Your task to perform on an android device: Go to Yahoo.com Image 0: 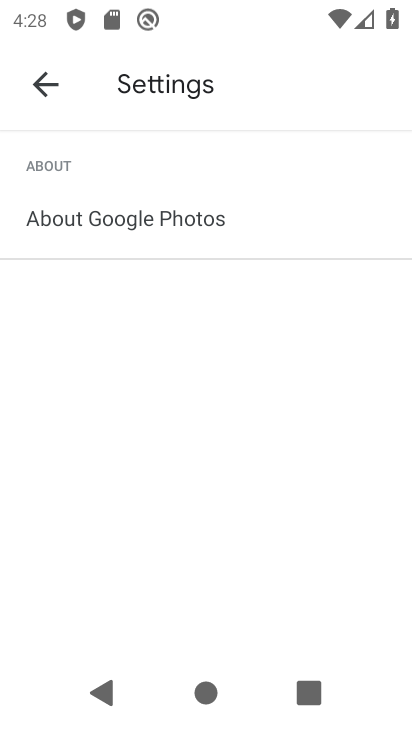
Step 0: press back button
Your task to perform on an android device: Go to Yahoo.com Image 1: 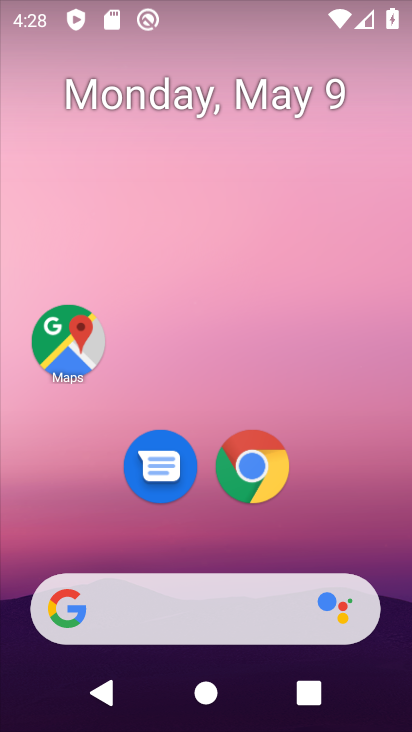
Step 1: drag from (347, 525) to (275, 0)
Your task to perform on an android device: Go to Yahoo.com Image 2: 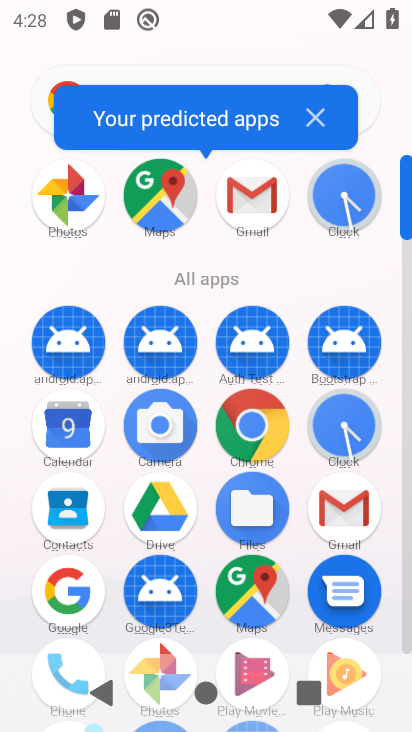
Step 2: click (259, 422)
Your task to perform on an android device: Go to Yahoo.com Image 3: 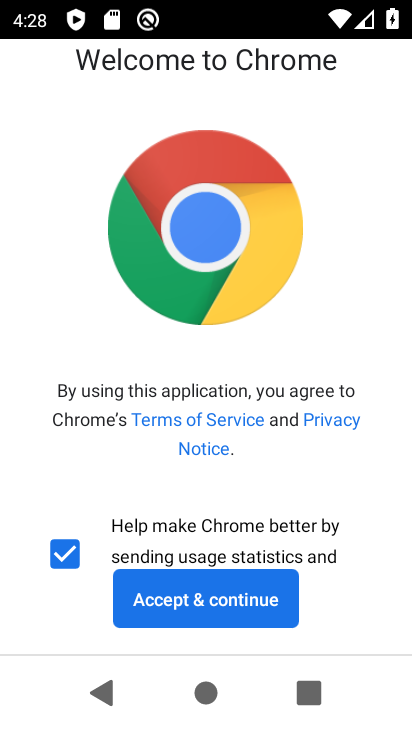
Step 3: click (230, 595)
Your task to perform on an android device: Go to Yahoo.com Image 4: 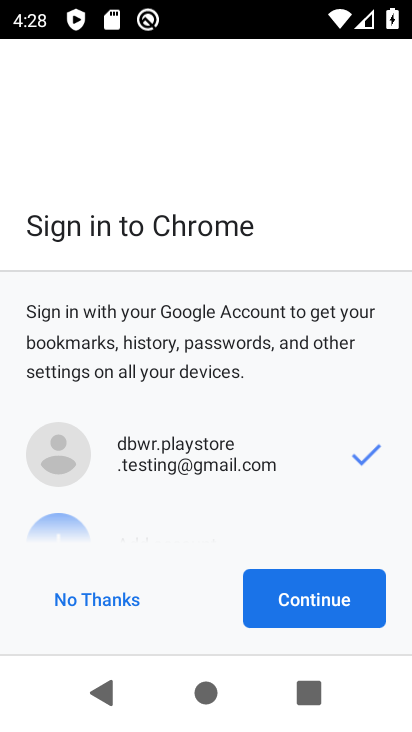
Step 4: click (308, 595)
Your task to perform on an android device: Go to Yahoo.com Image 5: 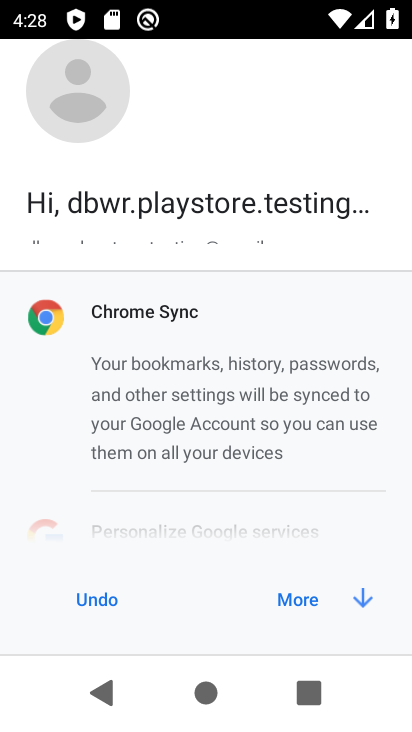
Step 5: click (309, 588)
Your task to perform on an android device: Go to Yahoo.com Image 6: 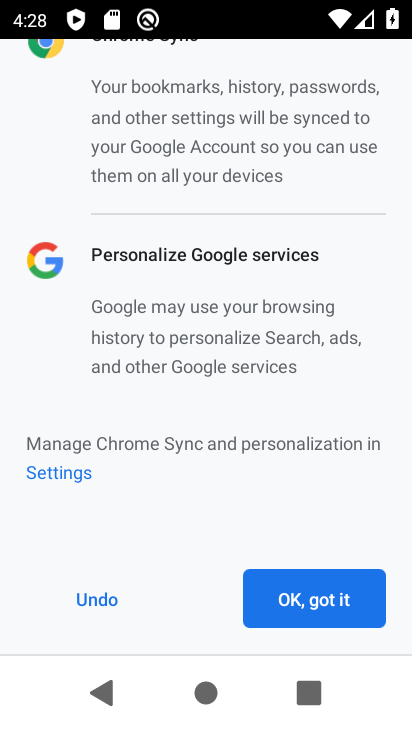
Step 6: click (325, 614)
Your task to perform on an android device: Go to Yahoo.com Image 7: 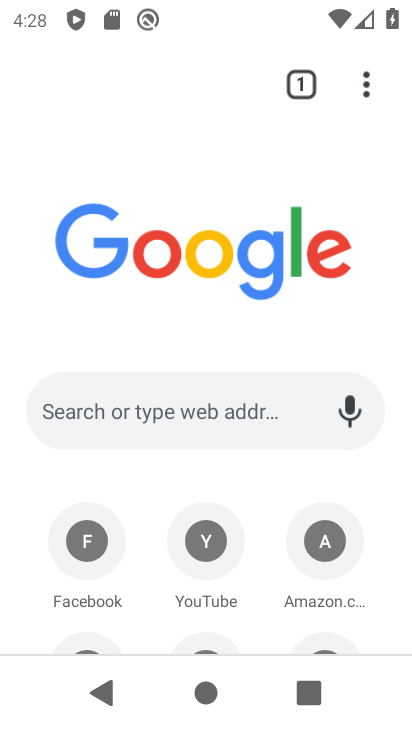
Step 7: click (183, 400)
Your task to perform on an android device: Go to Yahoo.com Image 8: 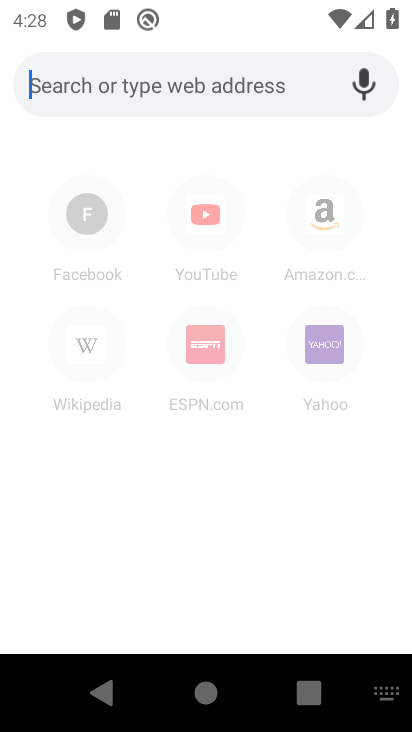
Step 8: click (332, 339)
Your task to perform on an android device: Go to Yahoo.com Image 9: 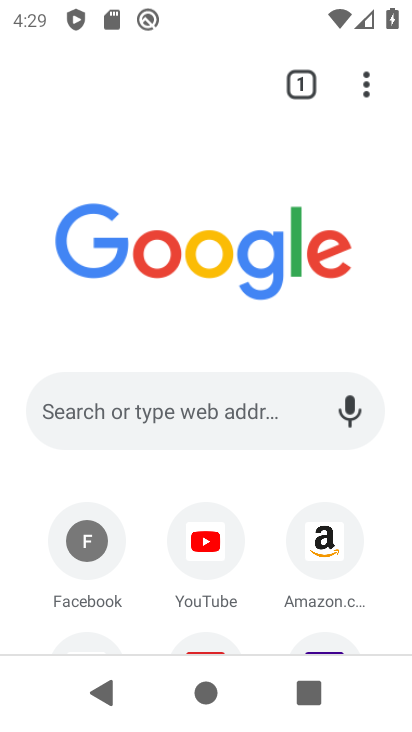
Step 9: drag from (35, 561) to (19, 301)
Your task to perform on an android device: Go to Yahoo.com Image 10: 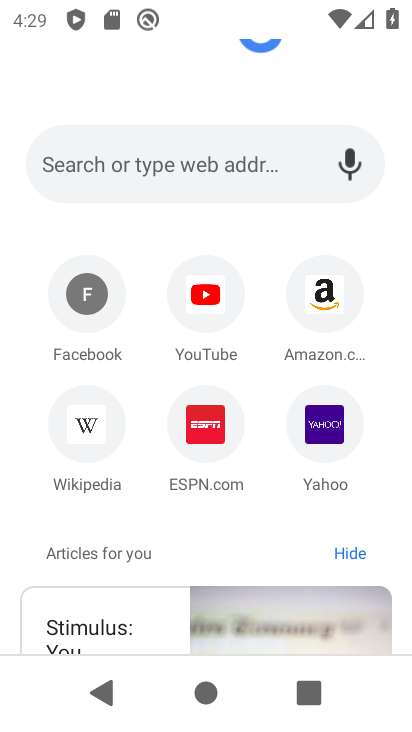
Step 10: click (316, 422)
Your task to perform on an android device: Go to Yahoo.com Image 11: 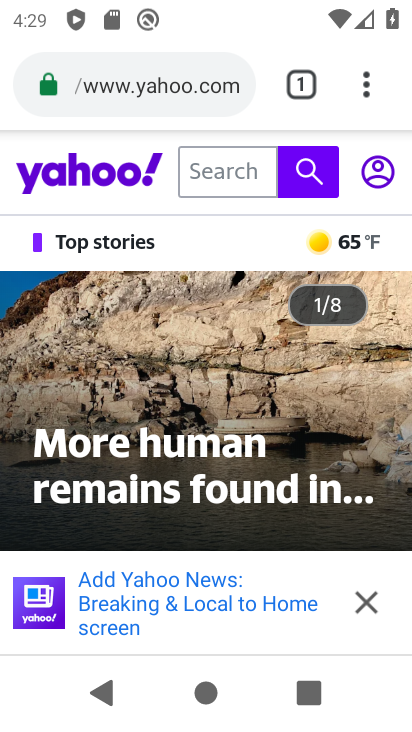
Step 11: task complete